Your task to perform on an android device: snooze an email in the gmail app Image 0: 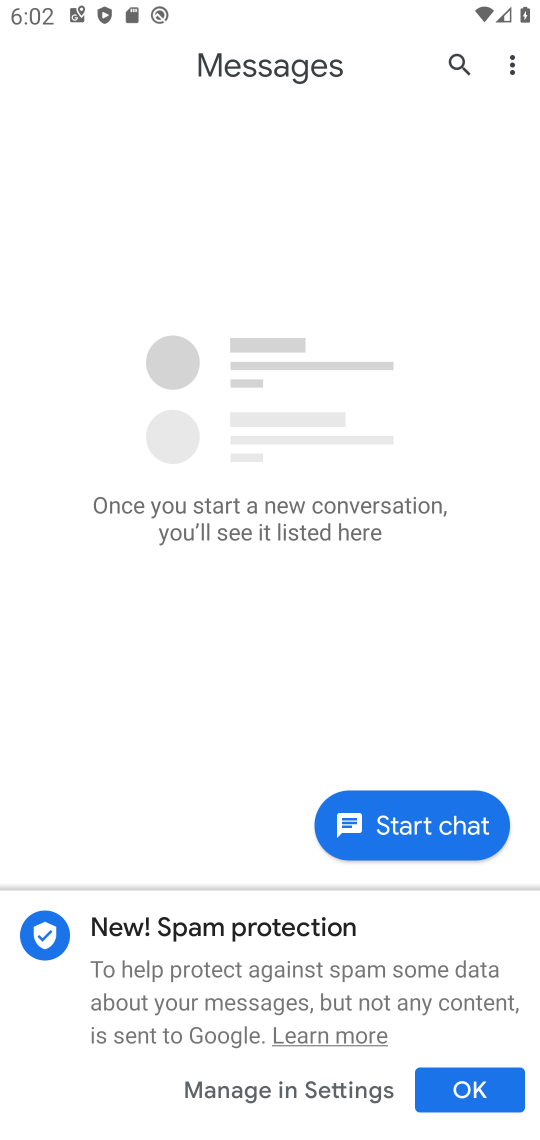
Step 0: press back button
Your task to perform on an android device: snooze an email in the gmail app Image 1: 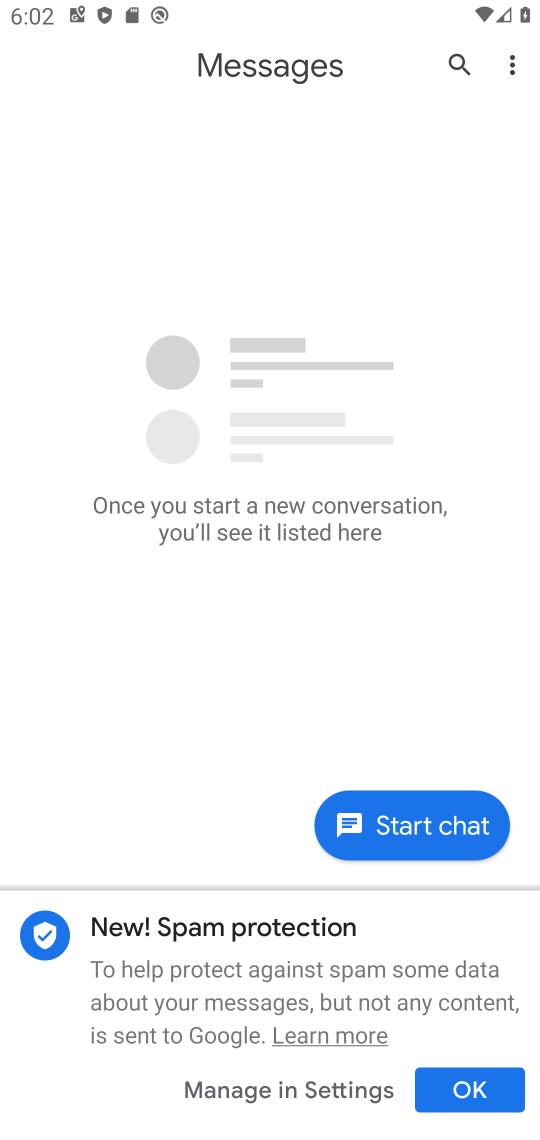
Step 1: drag from (251, 834) to (194, 392)
Your task to perform on an android device: snooze an email in the gmail app Image 2: 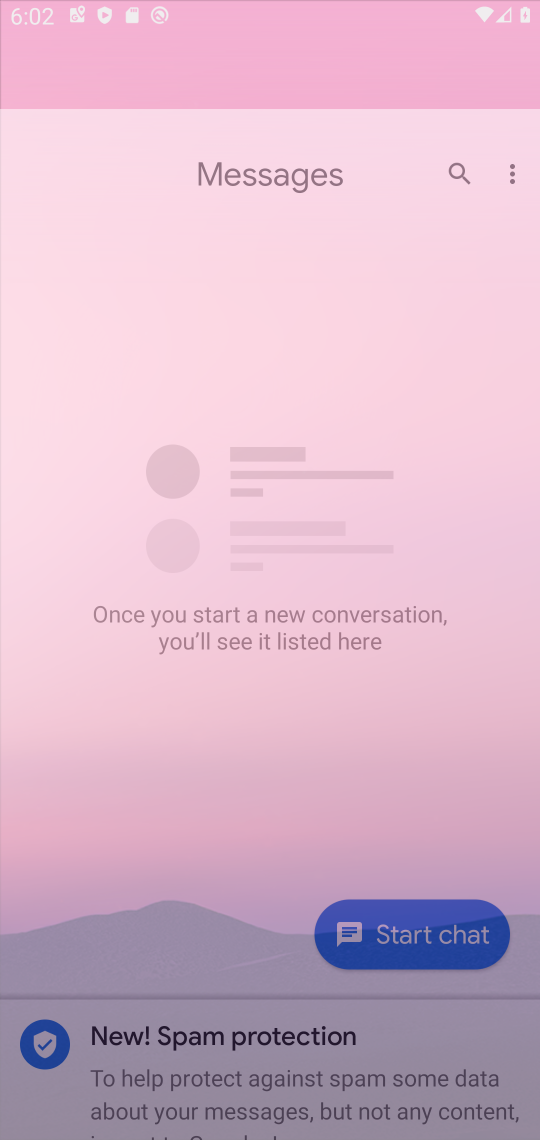
Step 2: drag from (300, 925) to (254, 153)
Your task to perform on an android device: snooze an email in the gmail app Image 3: 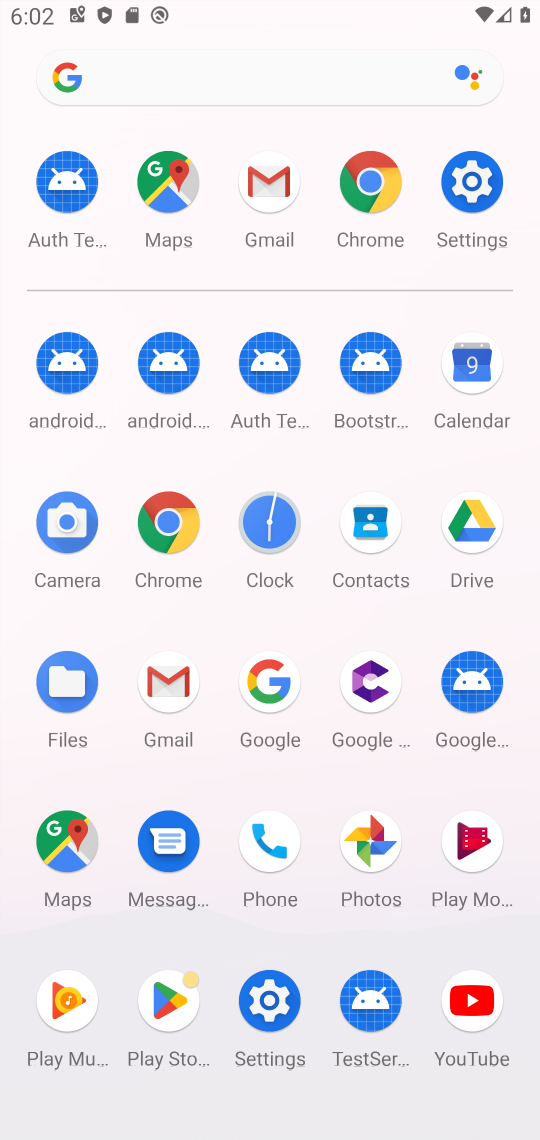
Step 3: click (171, 701)
Your task to perform on an android device: snooze an email in the gmail app Image 4: 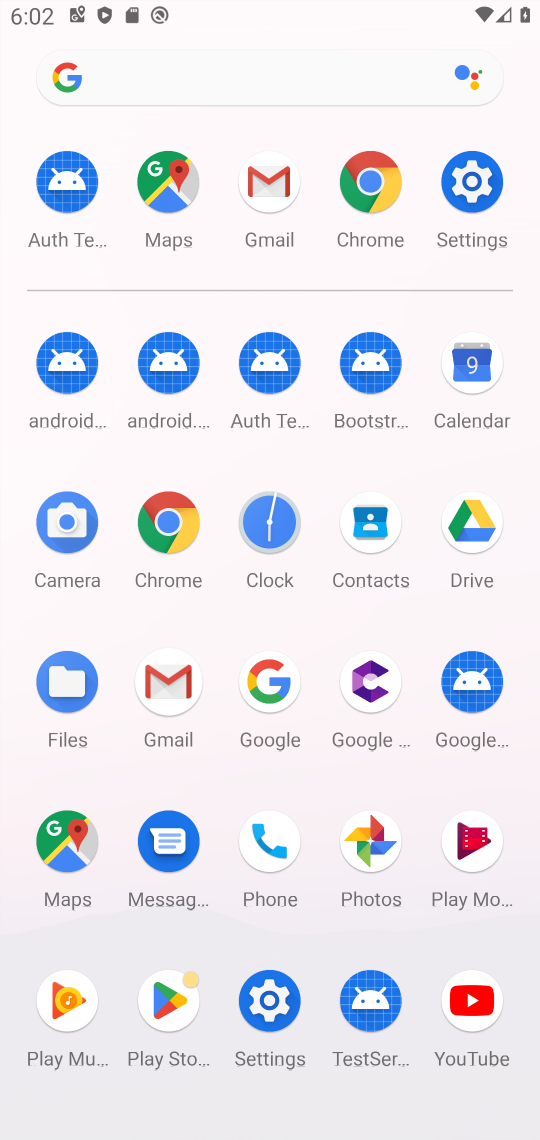
Step 4: click (165, 703)
Your task to perform on an android device: snooze an email in the gmail app Image 5: 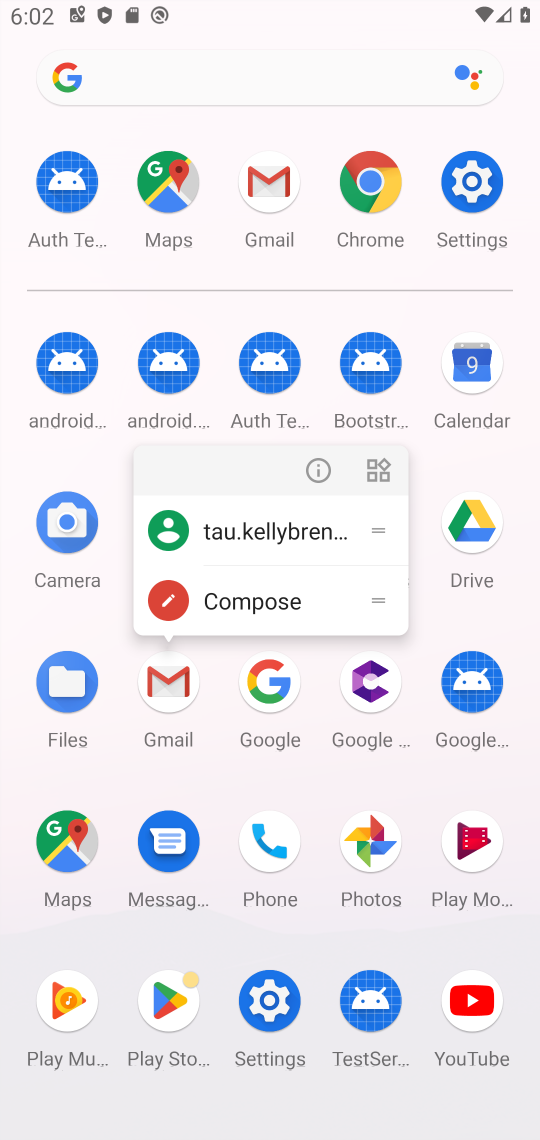
Step 5: click (165, 703)
Your task to perform on an android device: snooze an email in the gmail app Image 6: 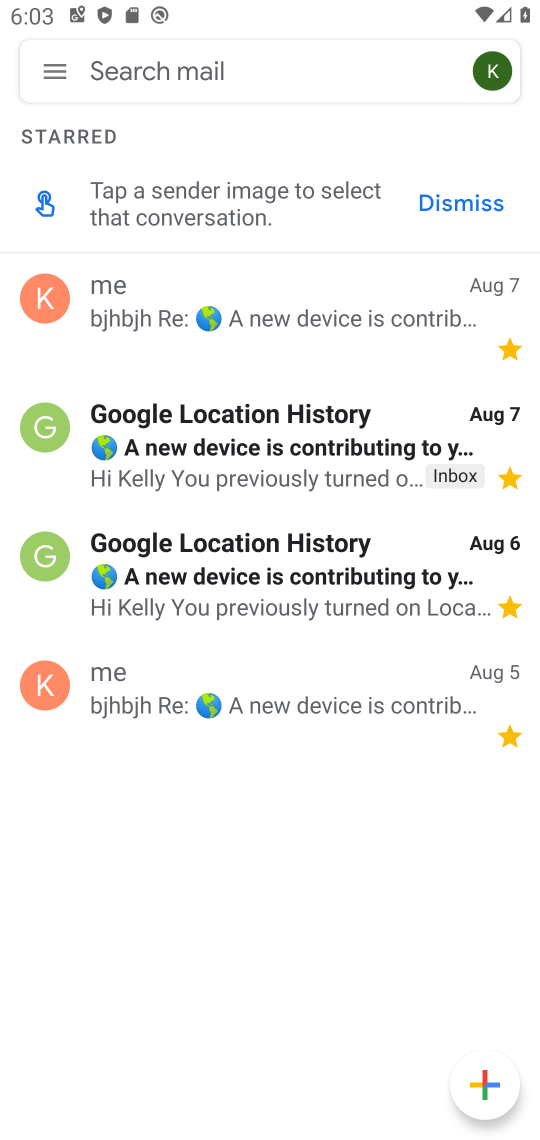
Step 6: click (268, 321)
Your task to perform on an android device: snooze an email in the gmail app Image 7: 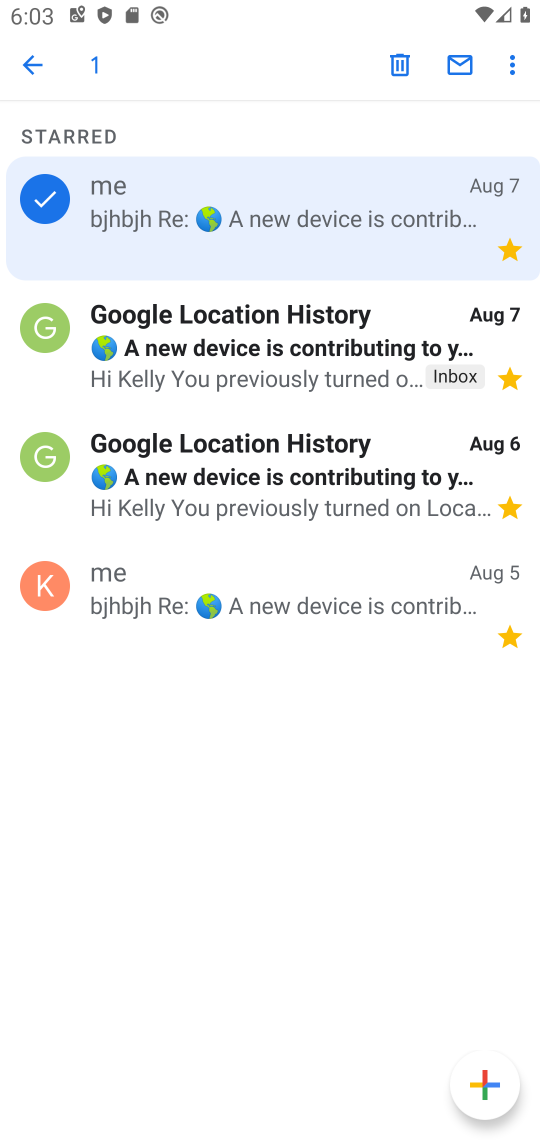
Step 7: click (500, 64)
Your task to perform on an android device: snooze an email in the gmail app Image 8: 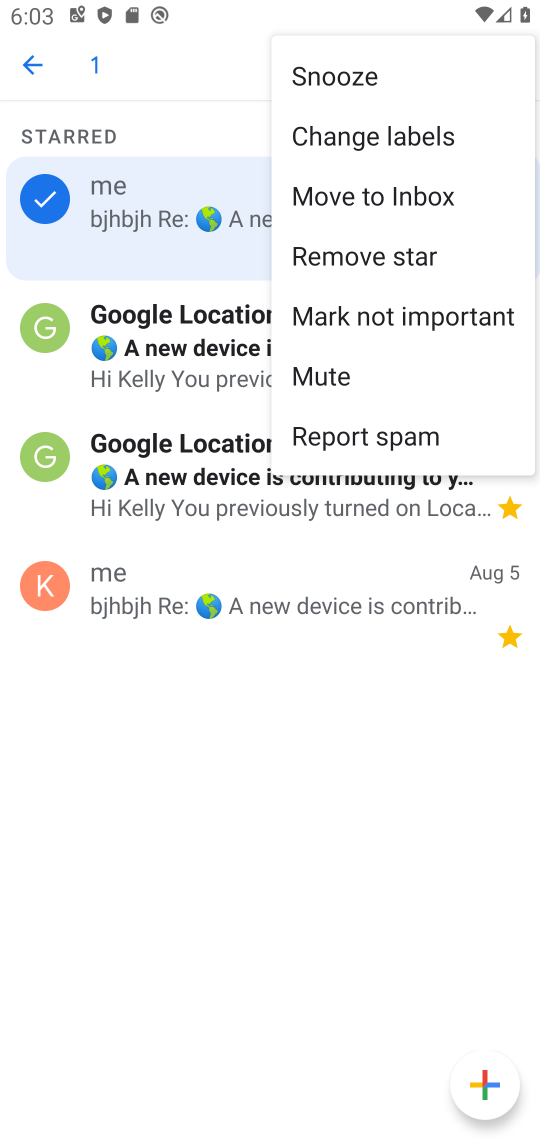
Step 8: click (357, 80)
Your task to perform on an android device: snooze an email in the gmail app Image 9: 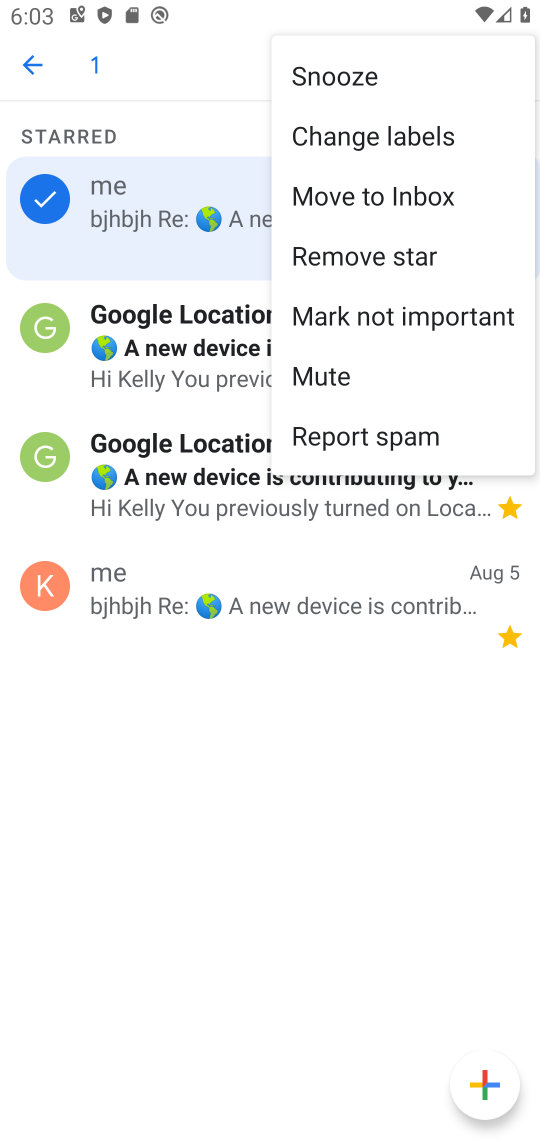
Step 9: click (355, 81)
Your task to perform on an android device: snooze an email in the gmail app Image 10: 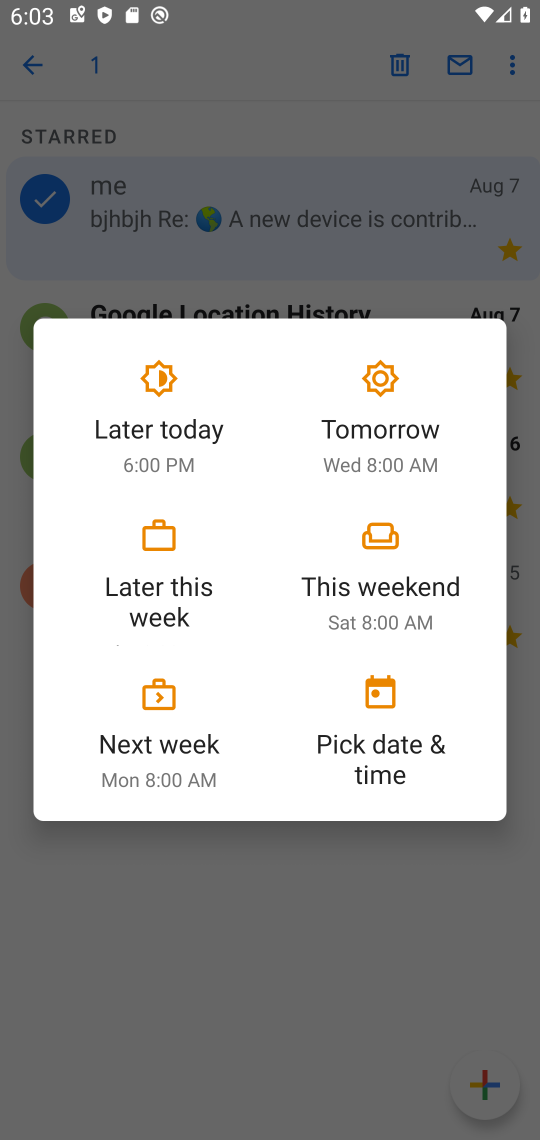
Step 10: click (177, 438)
Your task to perform on an android device: snooze an email in the gmail app Image 11: 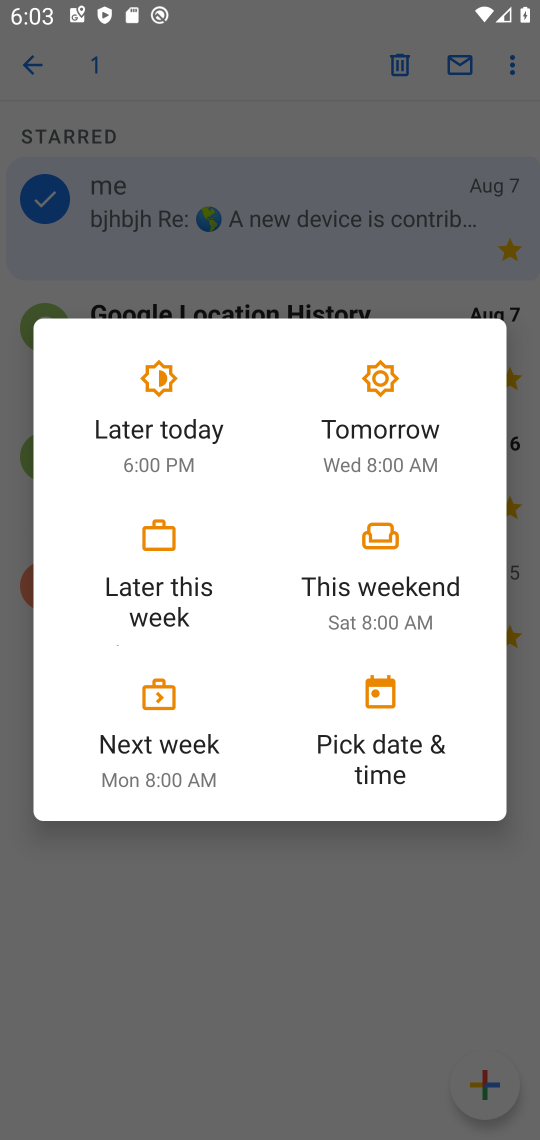
Step 11: click (176, 438)
Your task to perform on an android device: snooze an email in the gmail app Image 12: 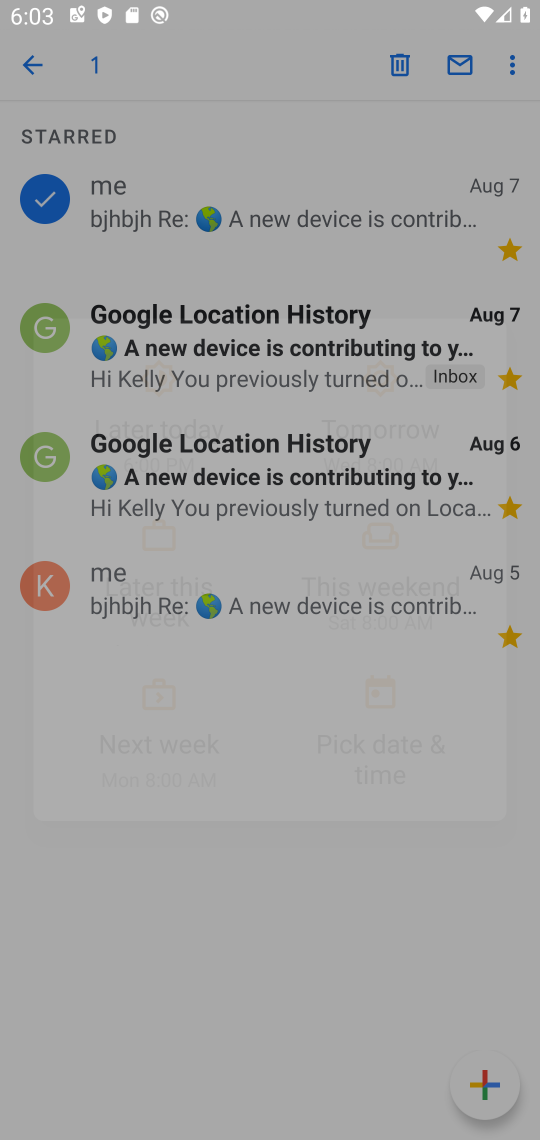
Step 12: click (174, 438)
Your task to perform on an android device: snooze an email in the gmail app Image 13: 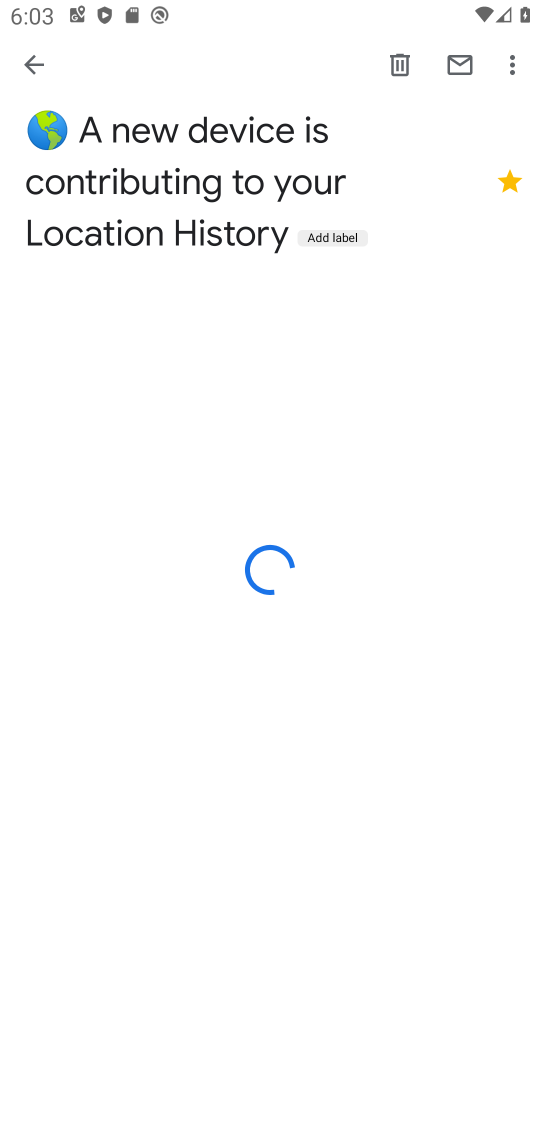
Step 13: task complete